Your task to perform on an android device: Go to Yahoo.com Image 0: 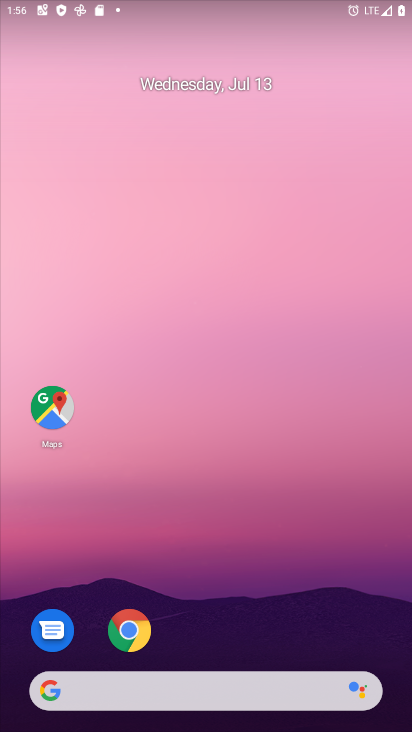
Step 0: drag from (384, 639) to (250, 55)
Your task to perform on an android device: Go to Yahoo.com Image 1: 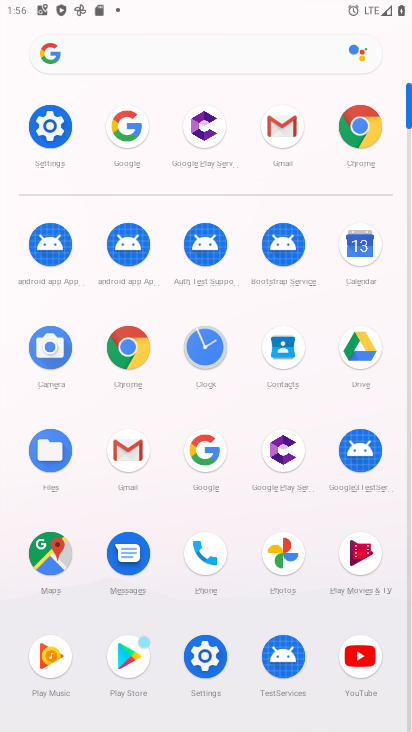
Step 1: click (201, 450)
Your task to perform on an android device: Go to Yahoo.com Image 2: 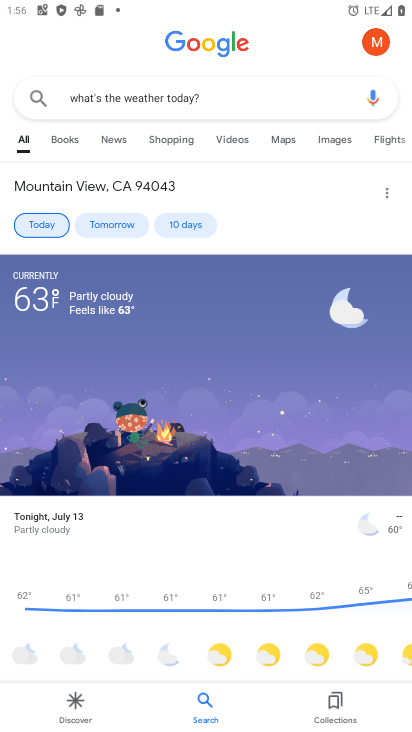
Step 2: press back button
Your task to perform on an android device: Go to Yahoo.com Image 3: 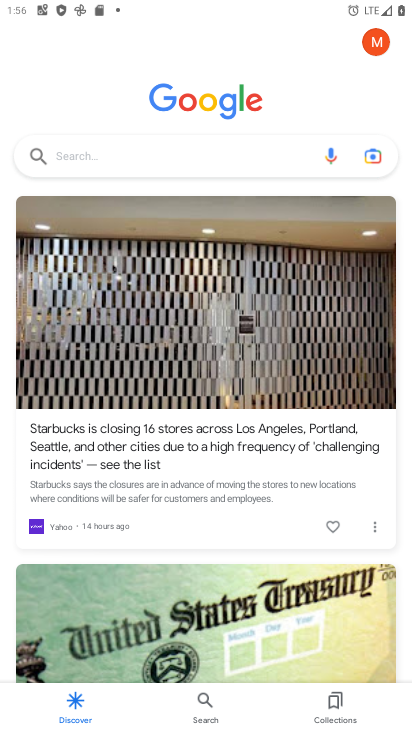
Step 3: click (138, 161)
Your task to perform on an android device: Go to Yahoo.com Image 4: 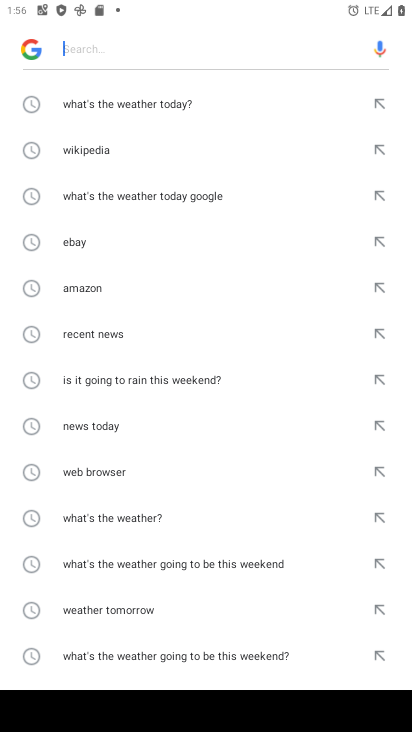
Step 4: type "Yahoo.com"
Your task to perform on an android device: Go to Yahoo.com Image 5: 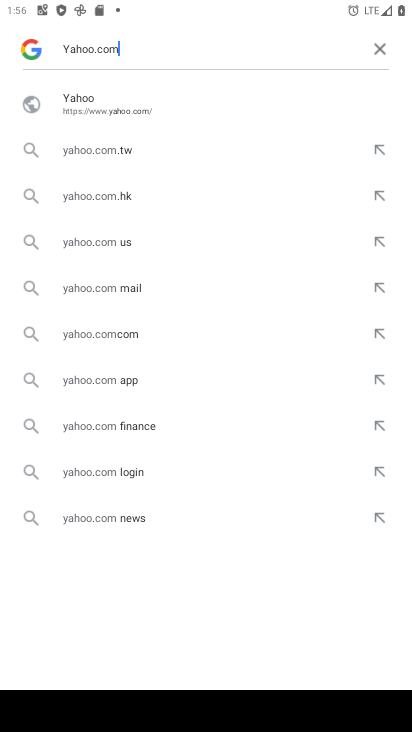
Step 5: click (118, 117)
Your task to perform on an android device: Go to Yahoo.com Image 6: 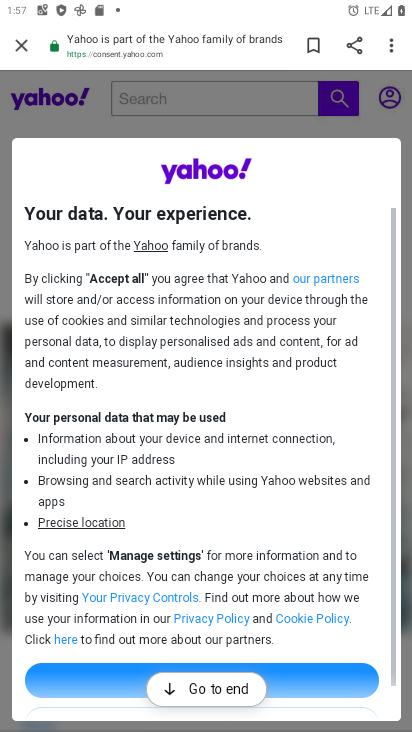
Step 6: task complete